Your task to perform on an android device: turn off sleep mode Image 0: 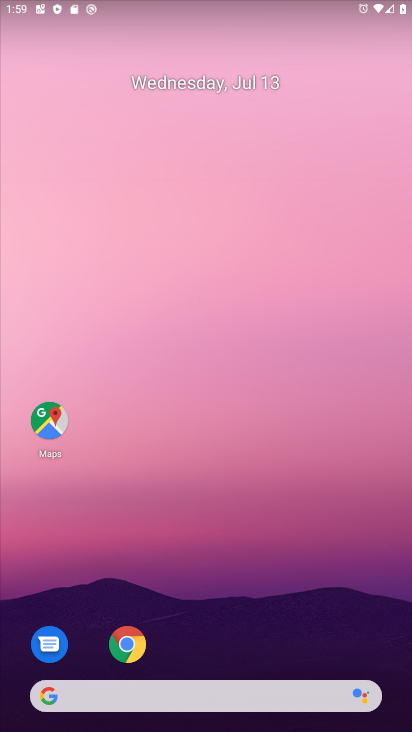
Step 0: click (167, 8)
Your task to perform on an android device: turn off sleep mode Image 1: 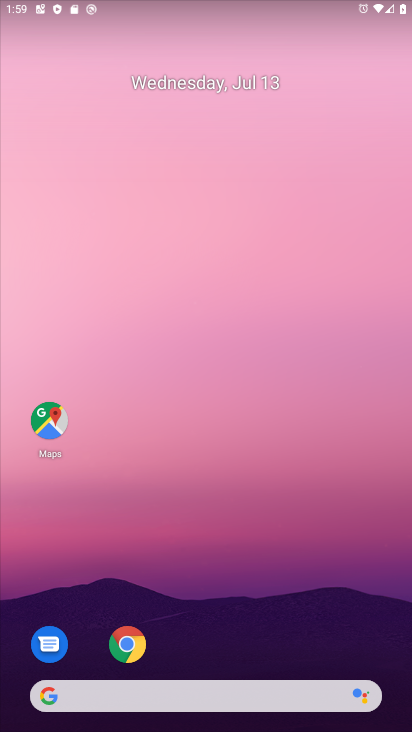
Step 1: drag from (180, 661) to (183, 76)
Your task to perform on an android device: turn off sleep mode Image 2: 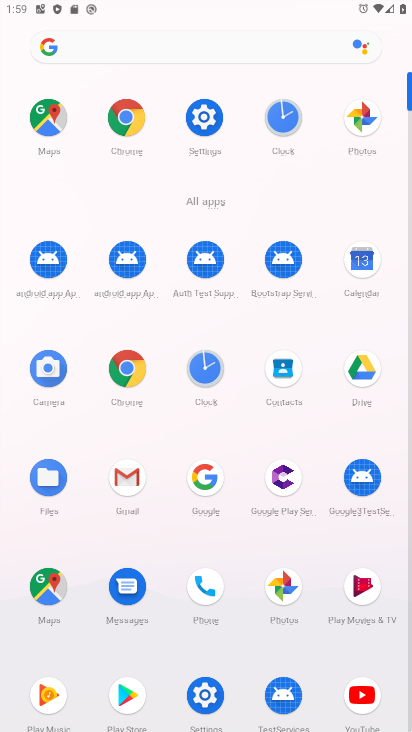
Step 2: click (186, 96)
Your task to perform on an android device: turn off sleep mode Image 3: 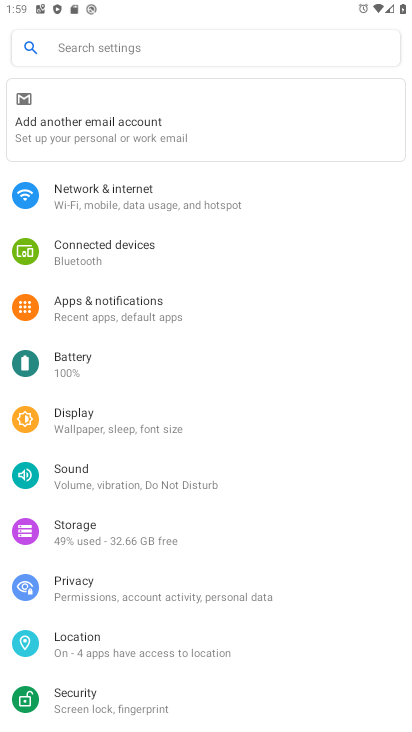
Step 3: click (113, 416)
Your task to perform on an android device: turn off sleep mode Image 4: 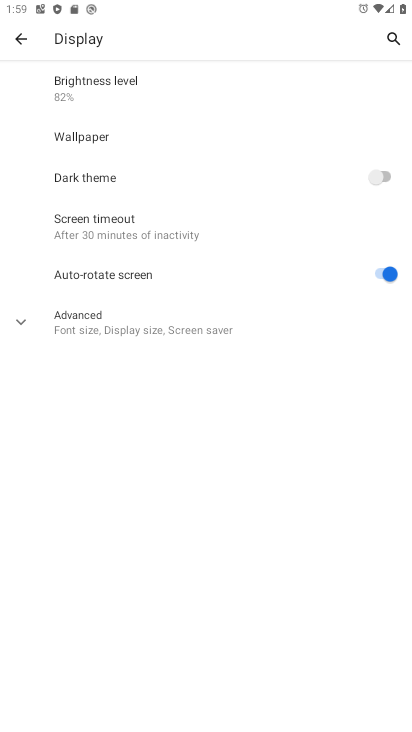
Step 4: task complete